Your task to perform on an android device: See recent photos Image 0: 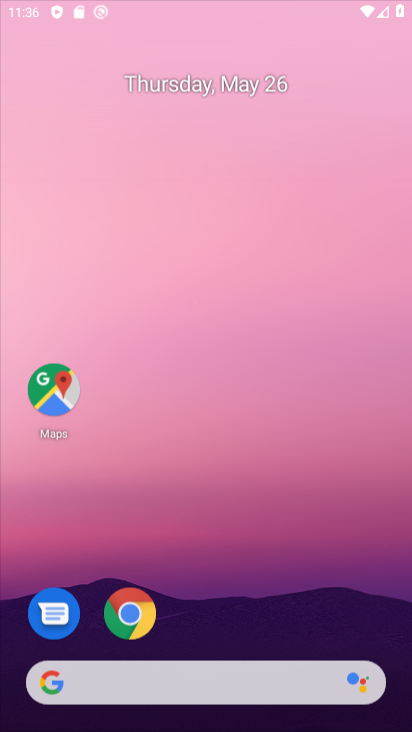
Step 0: press home button
Your task to perform on an android device: See recent photos Image 1: 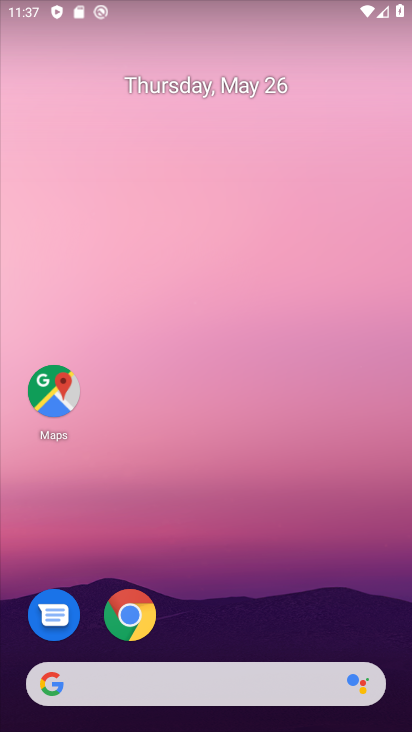
Step 1: drag from (305, 631) to (105, 192)
Your task to perform on an android device: See recent photos Image 2: 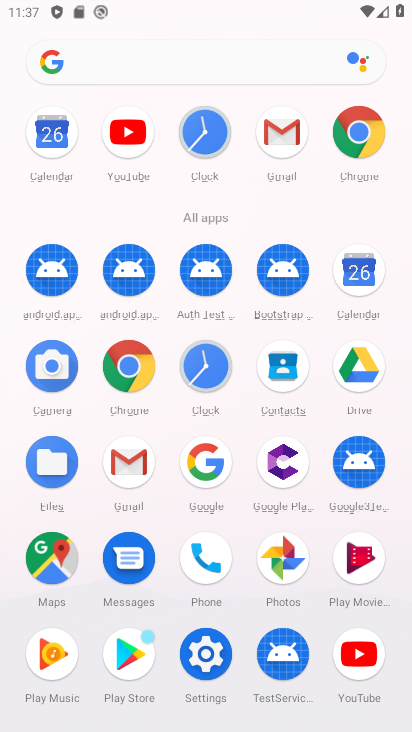
Step 2: click (267, 580)
Your task to perform on an android device: See recent photos Image 3: 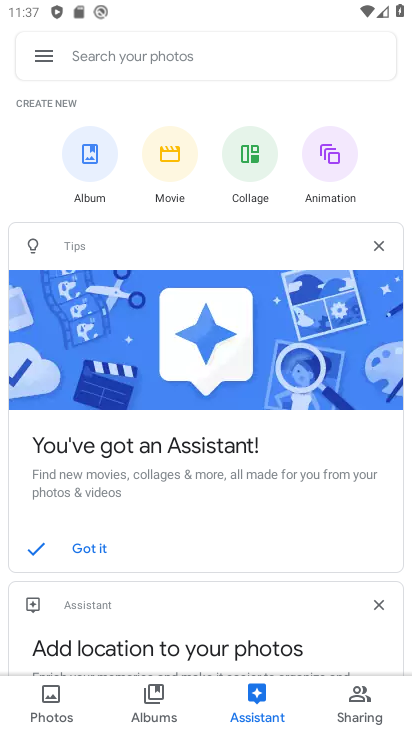
Step 3: click (35, 690)
Your task to perform on an android device: See recent photos Image 4: 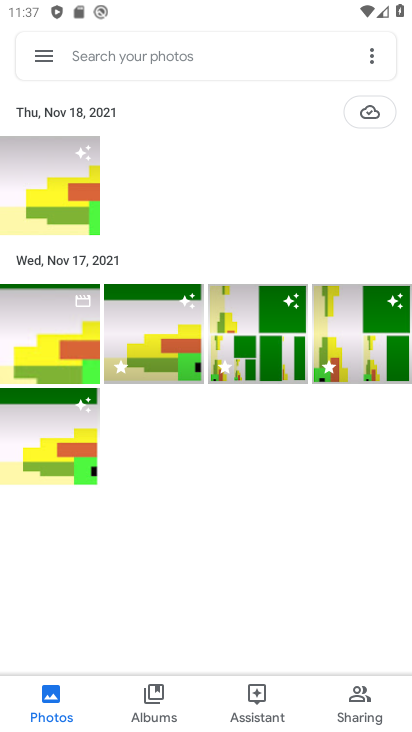
Step 4: task complete